Your task to perform on an android device: Open calendar and show me the fourth week of next month Image 0: 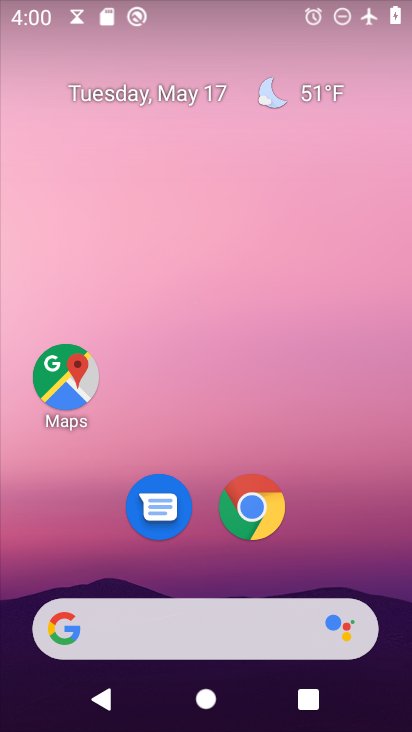
Step 0: drag from (196, 566) to (167, 83)
Your task to perform on an android device: Open calendar and show me the fourth week of next month Image 1: 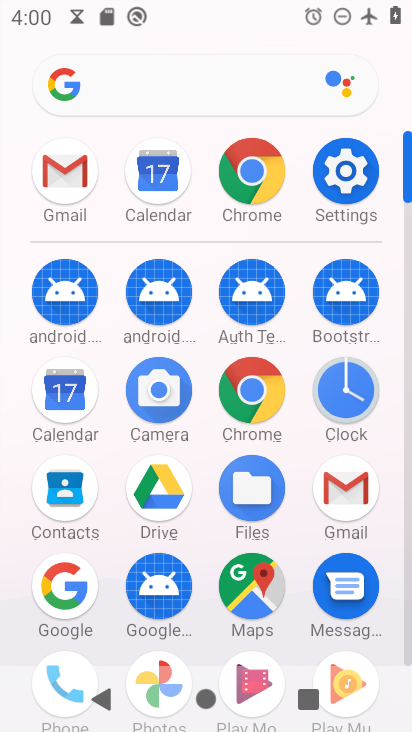
Step 1: click (56, 393)
Your task to perform on an android device: Open calendar and show me the fourth week of next month Image 2: 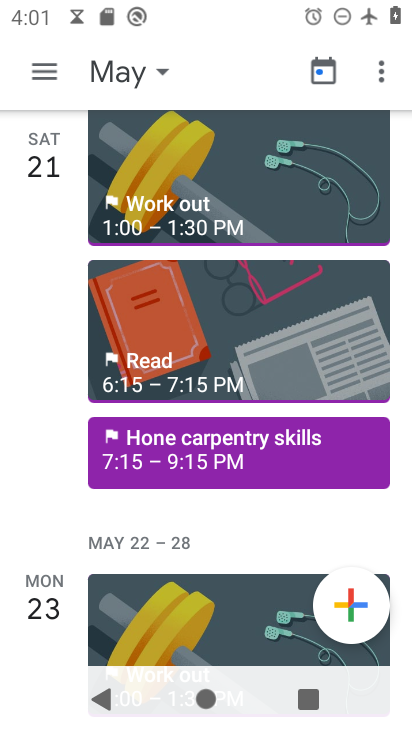
Step 2: click (140, 83)
Your task to perform on an android device: Open calendar and show me the fourth week of next month Image 3: 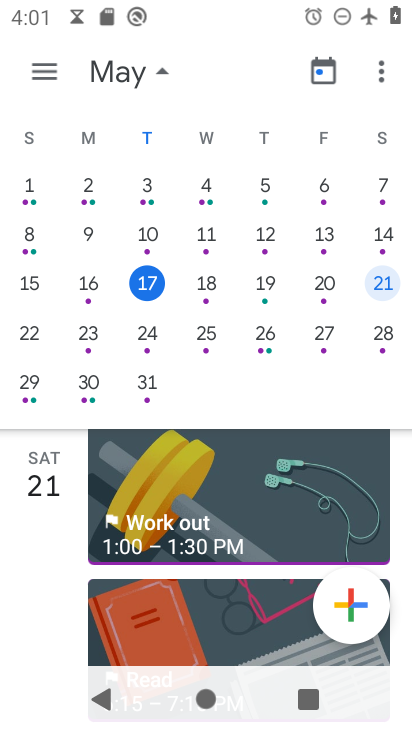
Step 3: drag from (360, 295) to (24, 304)
Your task to perform on an android device: Open calendar and show me the fourth week of next month Image 4: 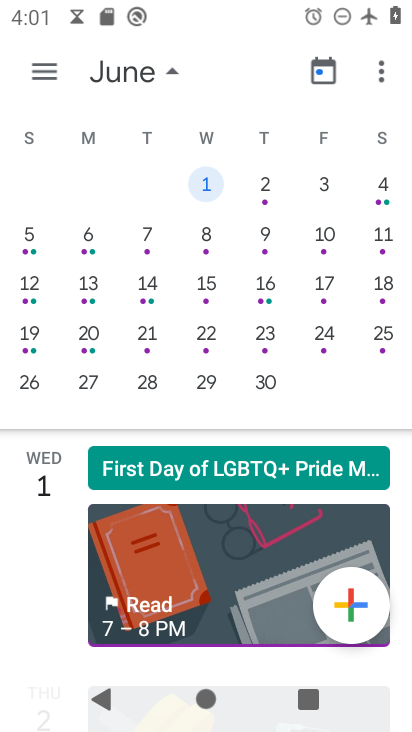
Step 4: click (43, 338)
Your task to perform on an android device: Open calendar and show me the fourth week of next month Image 5: 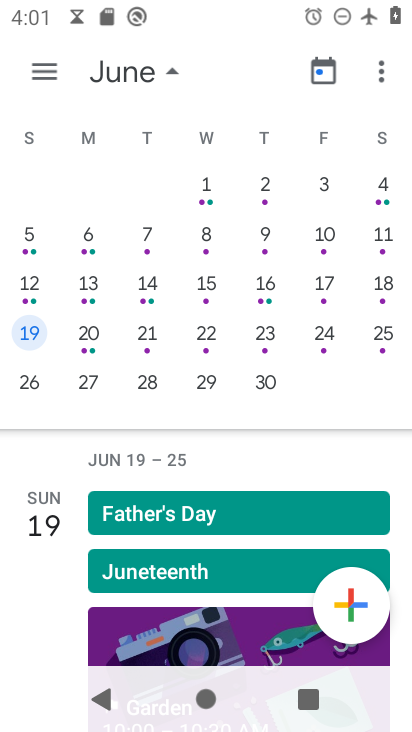
Step 5: task complete